Your task to perform on an android device: turn on airplane mode Image 0: 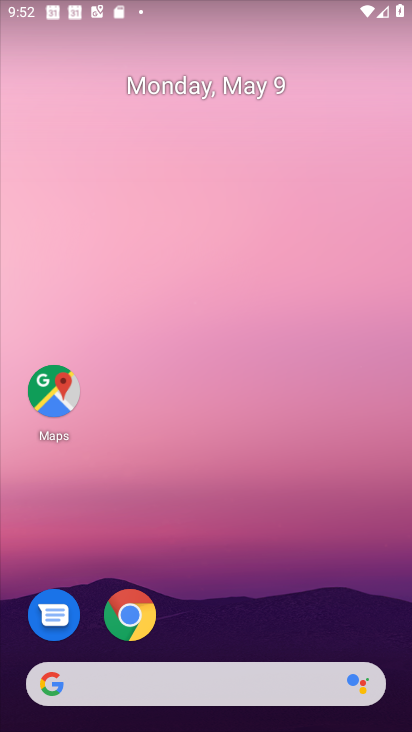
Step 0: drag from (285, 673) to (304, 107)
Your task to perform on an android device: turn on airplane mode Image 1: 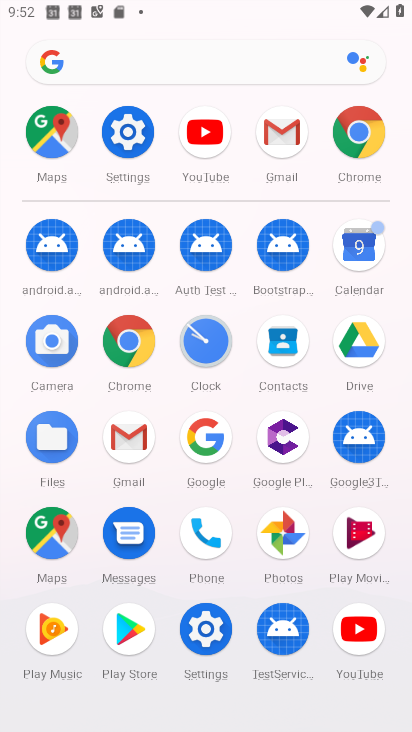
Step 1: click (111, 127)
Your task to perform on an android device: turn on airplane mode Image 2: 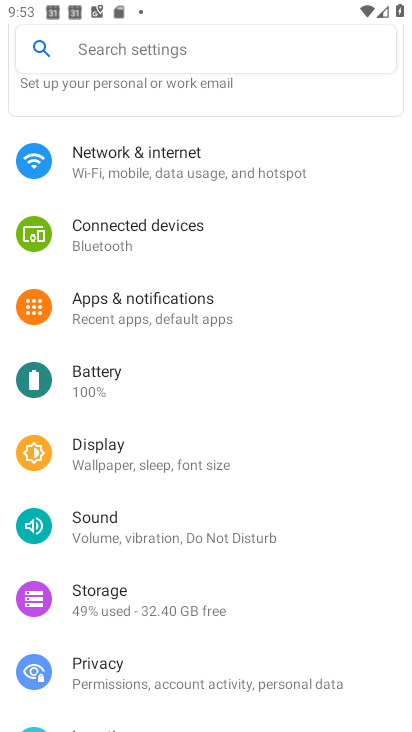
Step 2: click (166, 164)
Your task to perform on an android device: turn on airplane mode Image 3: 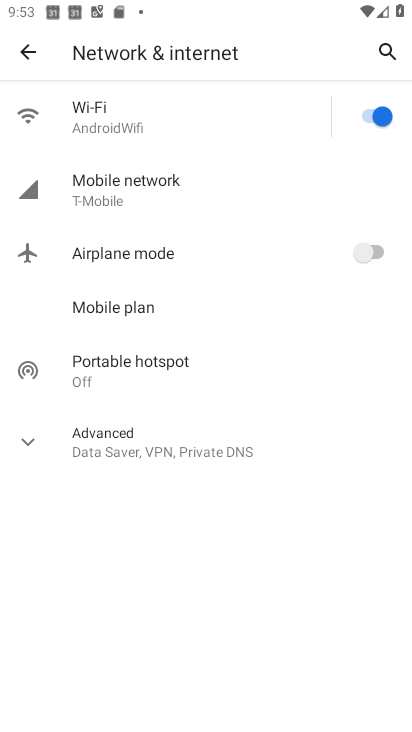
Step 3: click (179, 248)
Your task to perform on an android device: turn on airplane mode Image 4: 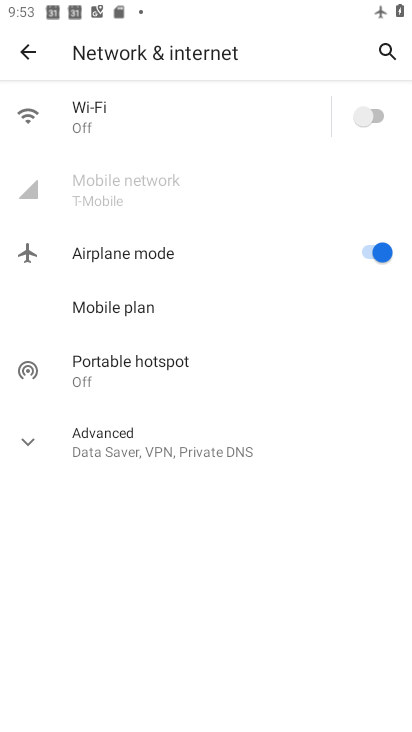
Step 4: task complete